Your task to perform on an android device: turn off javascript in the chrome app Image 0: 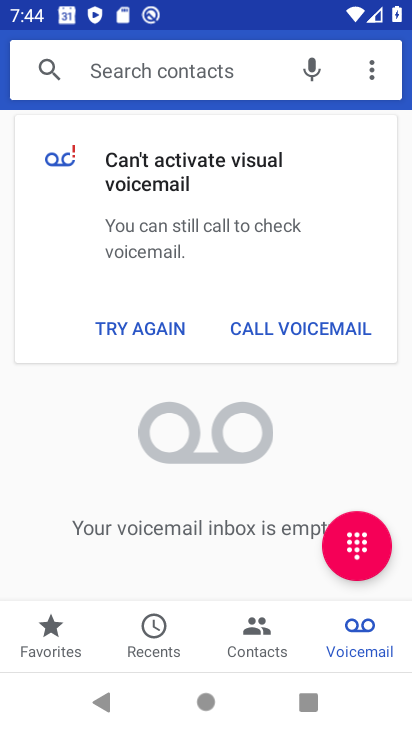
Step 0: press home button
Your task to perform on an android device: turn off javascript in the chrome app Image 1: 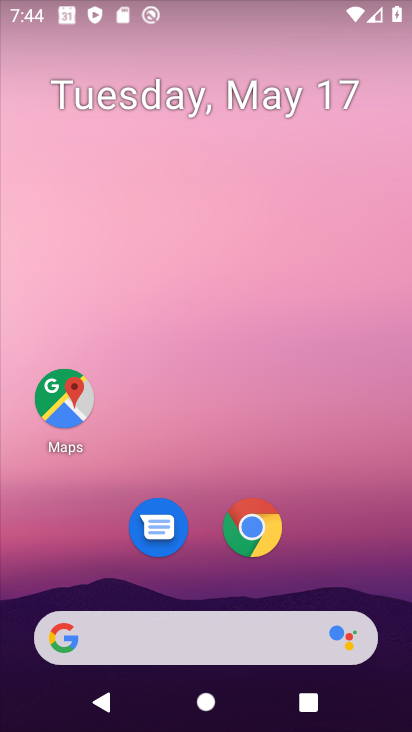
Step 1: drag from (235, 577) to (282, 204)
Your task to perform on an android device: turn off javascript in the chrome app Image 2: 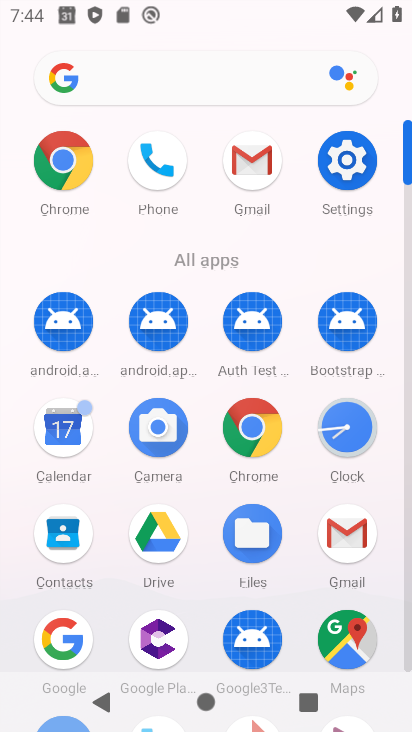
Step 2: click (240, 450)
Your task to perform on an android device: turn off javascript in the chrome app Image 3: 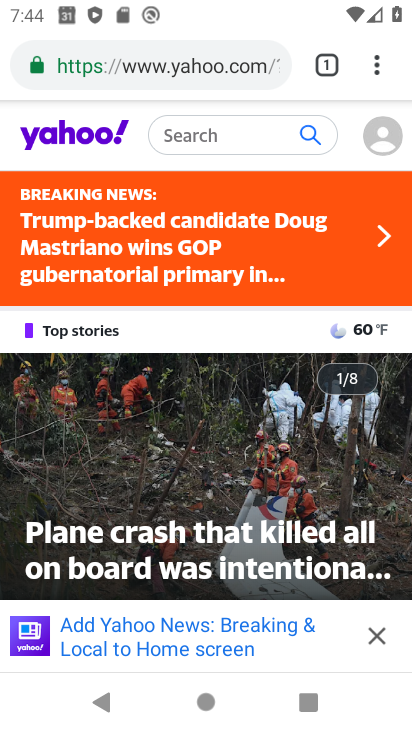
Step 3: click (369, 67)
Your task to perform on an android device: turn off javascript in the chrome app Image 4: 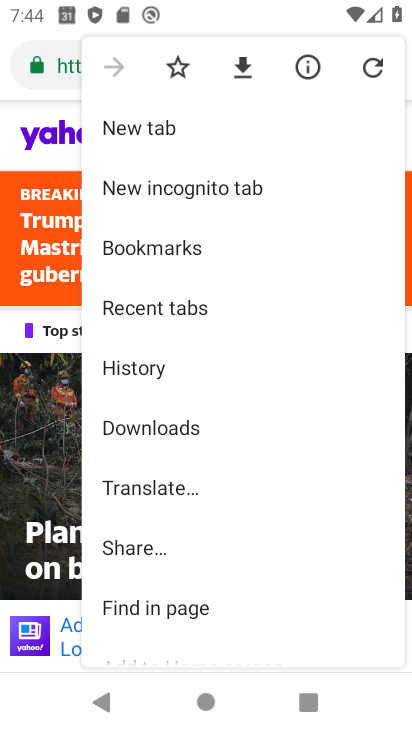
Step 4: drag from (220, 416) to (261, 218)
Your task to perform on an android device: turn off javascript in the chrome app Image 5: 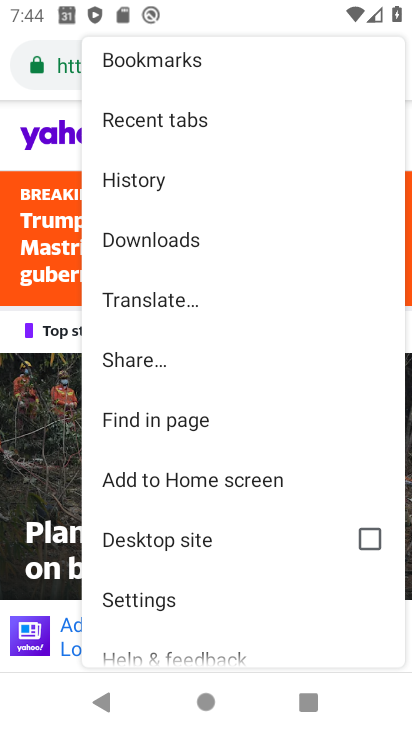
Step 5: click (158, 589)
Your task to perform on an android device: turn off javascript in the chrome app Image 6: 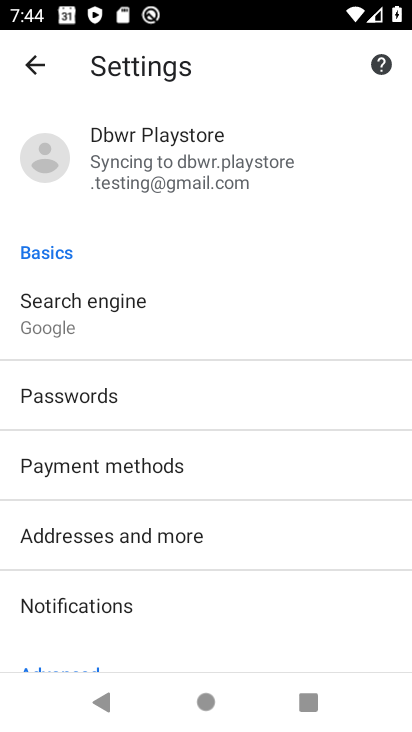
Step 6: drag from (154, 517) to (221, 291)
Your task to perform on an android device: turn off javascript in the chrome app Image 7: 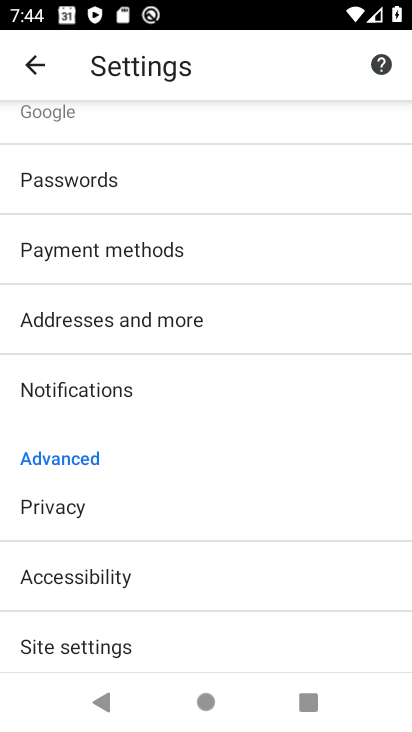
Step 7: drag from (125, 499) to (164, 294)
Your task to perform on an android device: turn off javascript in the chrome app Image 8: 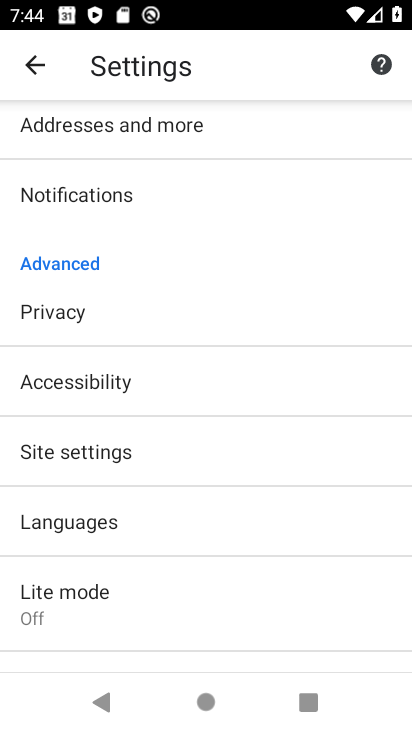
Step 8: drag from (115, 515) to (165, 407)
Your task to perform on an android device: turn off javascript in the chrome app Image 9: 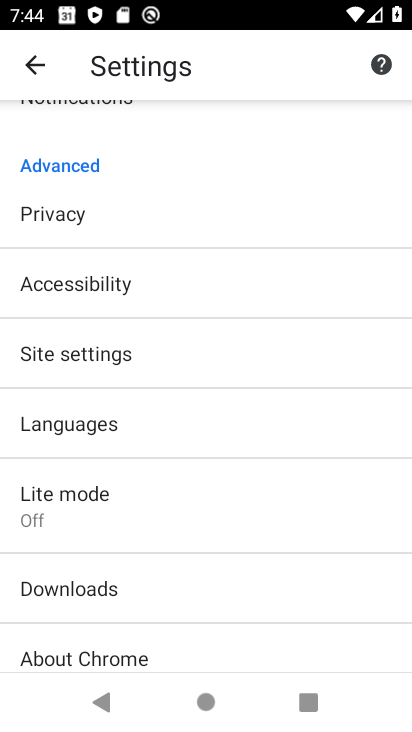
Step 9: click (102, 356)
Your task to perform on an android device: turn off javascript in the chrome app Image 10: 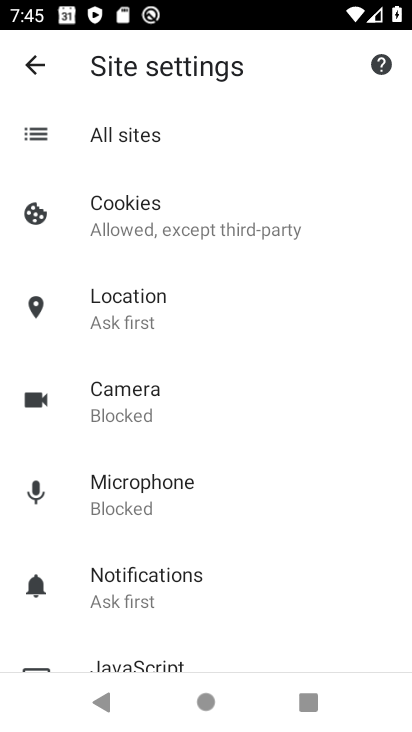
Step 10: drag from (183, 493) to (262, 279)
Your task to perform on an android device: turn off javascript in the chrome app Image 11: 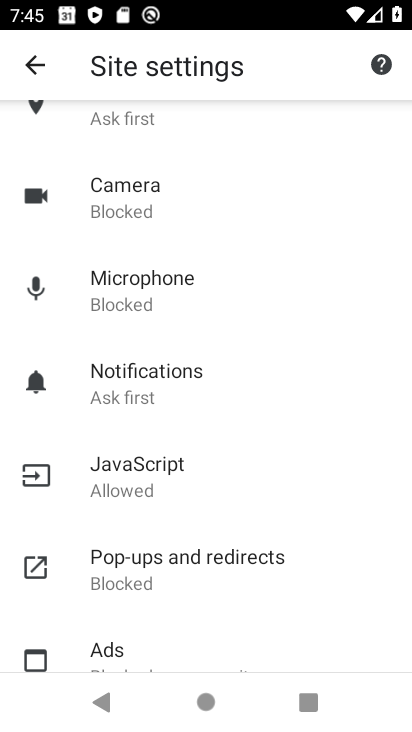
Step 11: click (161, 457)
Your task to perform on an android device: turn off javascript in the chrome app Image 12: 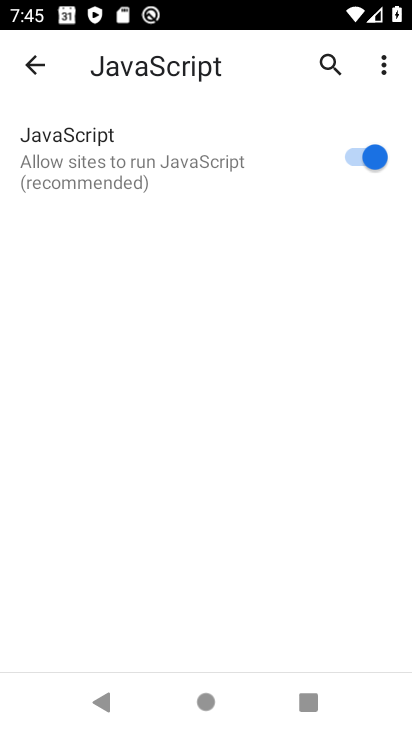
Step 12: click (358, 177)
Your task to perform on an android device: turn off javascript in the chrome app Image 13: 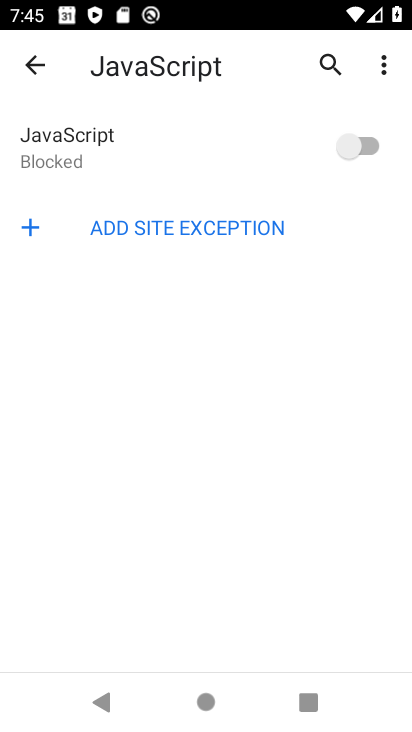
Step 13: task complete